Your task to perform on an android device: Go to location settings Image 0: 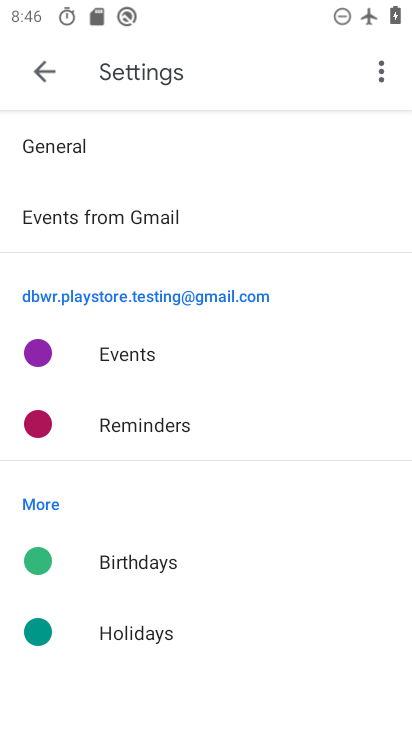
Step 0: press home button
Your task to perform on an android device: Go to location settings Image 1: 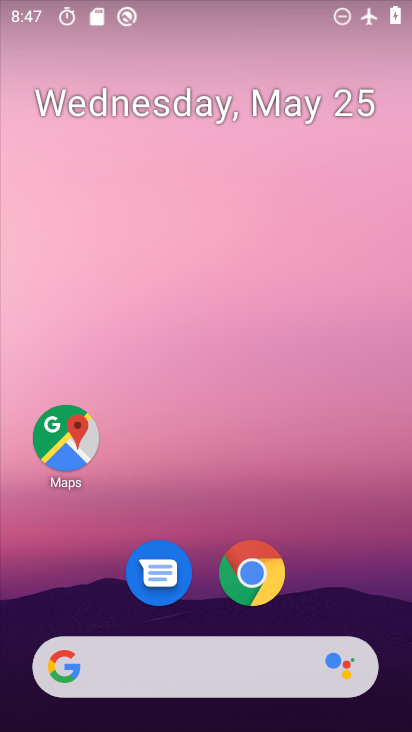
Step 1: drag from (395, 697) to (326, 143)
Your task to perform on an android device: Go to location settings Image 2: 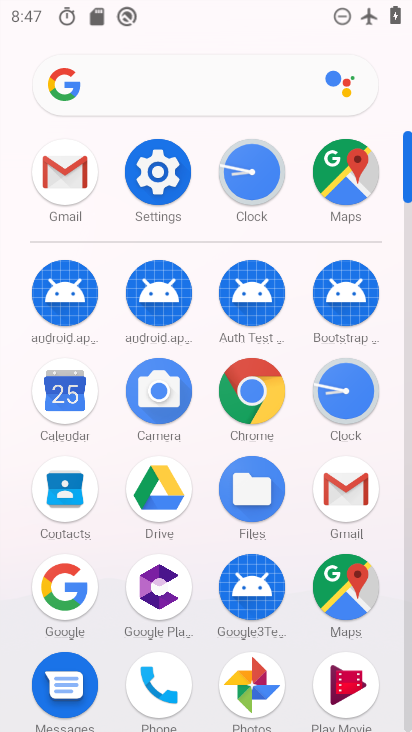
Step 2: click (165, 173)
Your task to perform on an android device: Go to location settings Image 3: 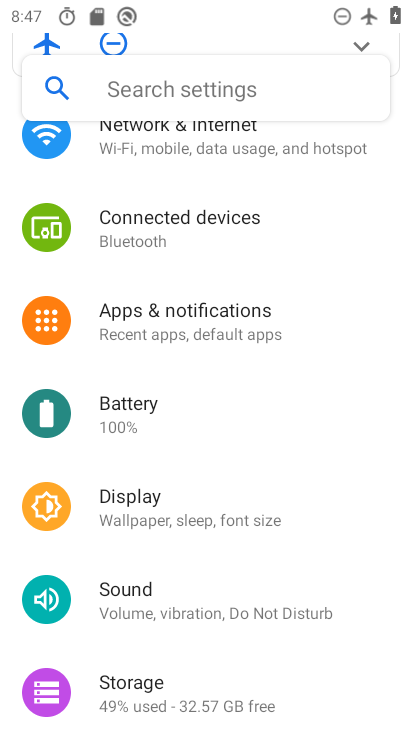
Step 3: drag from (320, 701) to (311, 307)
Your task to perform on an android device: Go to location settings Image 4: 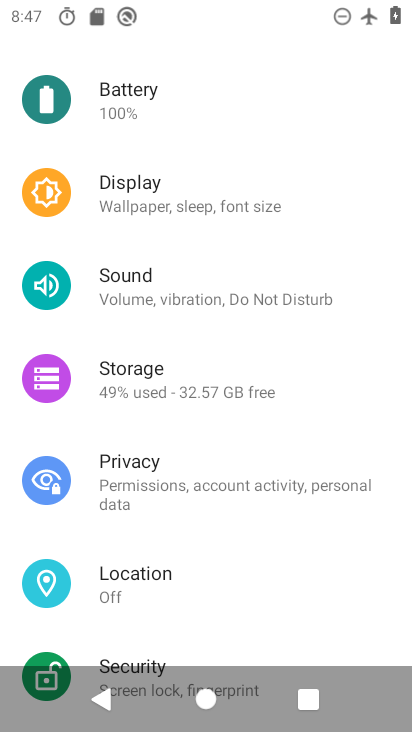
Step 4: click (138, 582)
Your task to perform on an android device: Go to location settings Image 5: 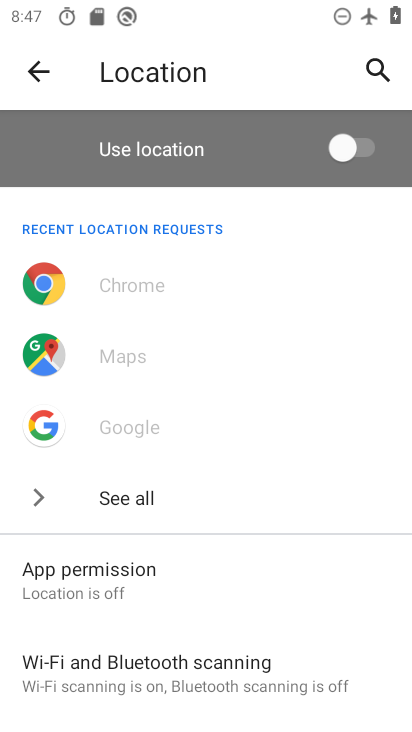
Step 5: drag from (301, 634) to (291, 393)
Your task to perform on an android device: Go to location settings Image 6: 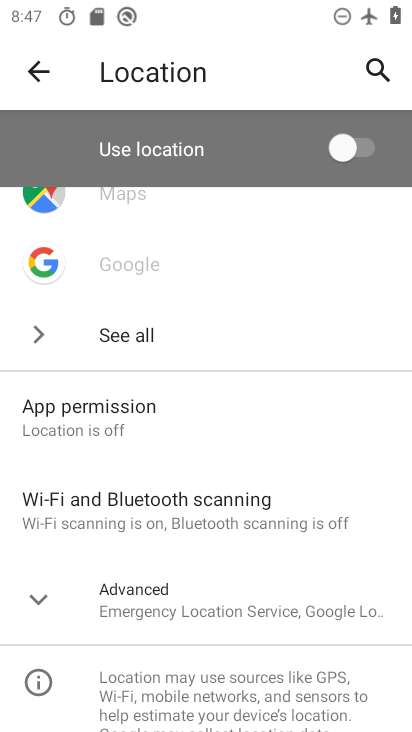
Step 6: drag from (225, 650) to (226, 250)
Your task to perform on an android device: Go to location settings Image 7: 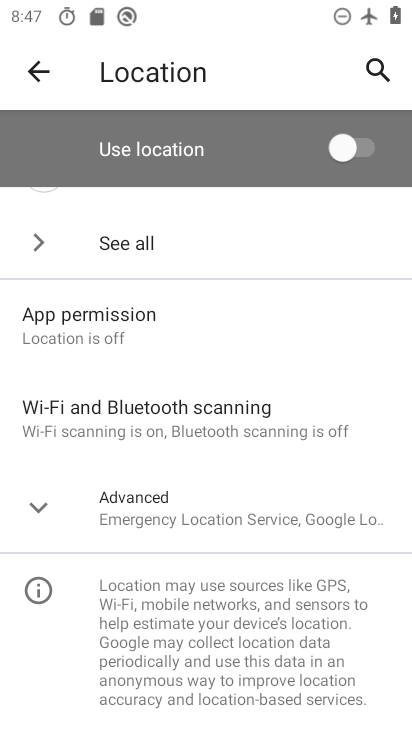
Step 7: click (38, 506)
Your task to perform on an android device: Go to location settings Image 8: 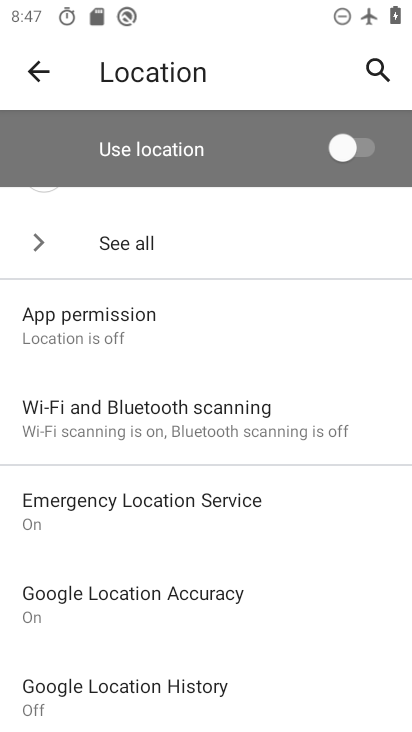
Step 8: task complete